Your task to perform on an android device: turn on priority inbox in the gmail app Image 0: 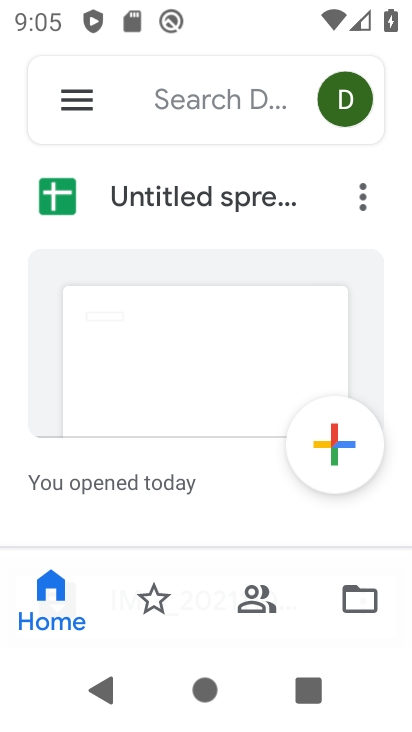
Step 0: press home button
Your task to perform on an android device: turn on priority inbox in the gmail app Image 1: 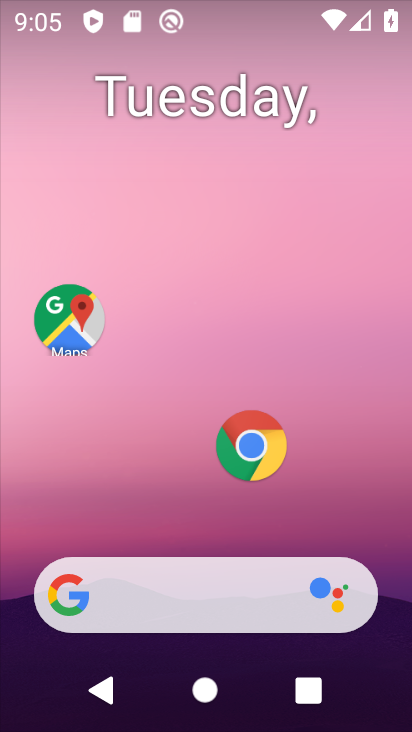
Step 1: drag from (172, 516) to (162, 108)
Your task to perform on an android device: turn on priority inbox in the gmail app Image 2: 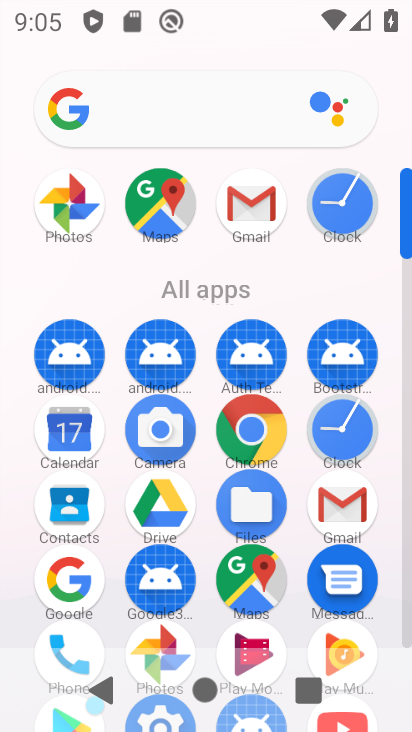
Step 2: click (252, 215)
Your task to perform on an android device: turn on priority inbox in the gmail app Image 3: 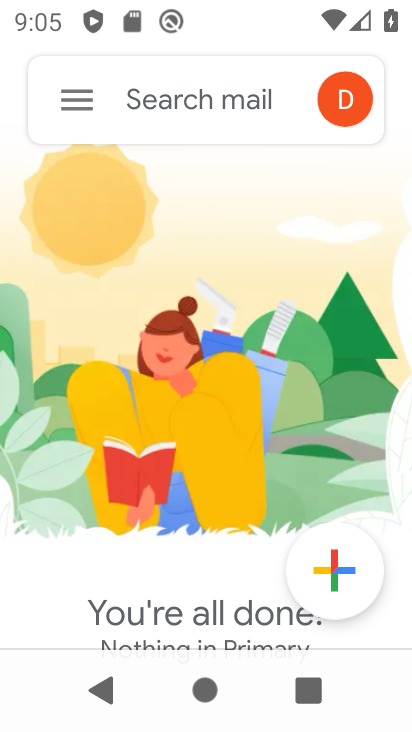
Step 3: click (66, 97)
Your task to perform on an android device: turn on priority inbox in the gmail app Image 4: 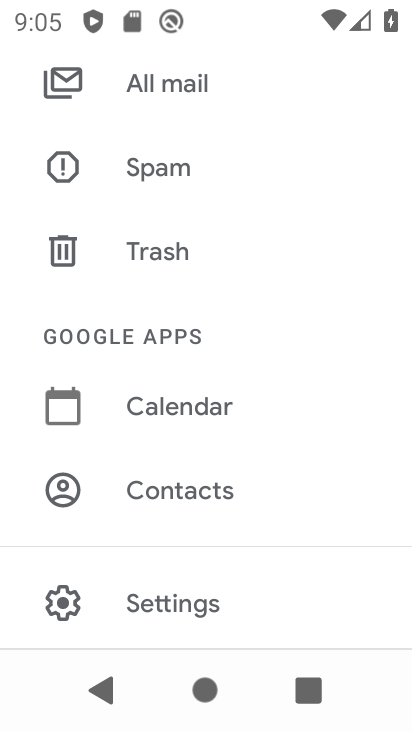
Step 4: click (182, 607)
Your task to perform on an android device: turn on priority inbox in the gmail app Image 5: 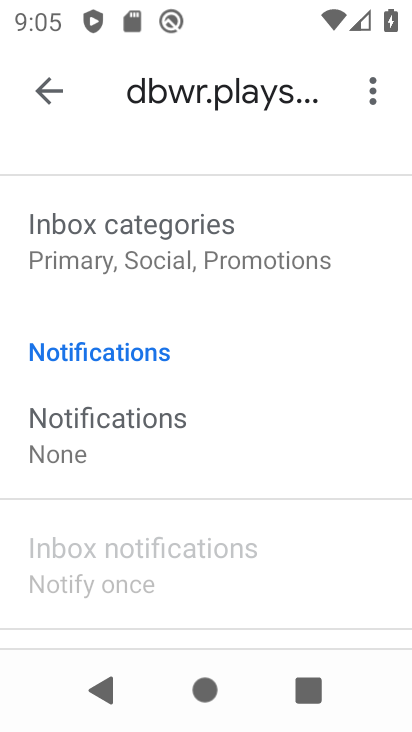
Step 5: drag from (197, 580) to (198, 351)
Your task to perform on an android device: turn on priority inbox in the gmail app Image 6: 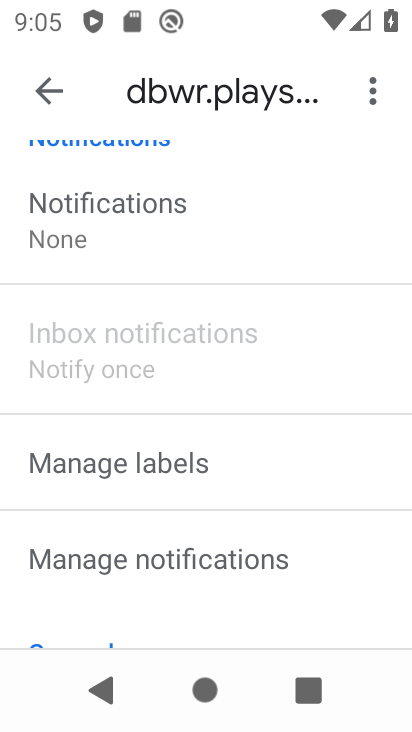
Step 6: drag from (197, 311) to (87, 663)
Your task to perform on an android device: turn on priority inbox in the gmail app Image 7: 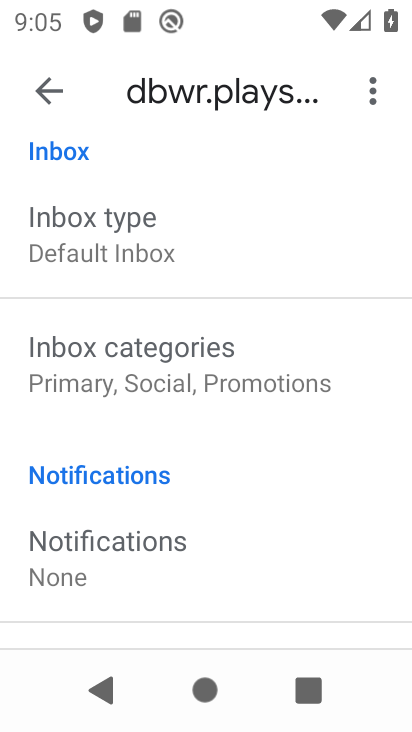
Step 7: click (112, 247)
Your task to perform on an android device: turn on priority inbox in the gmail app Image 8: 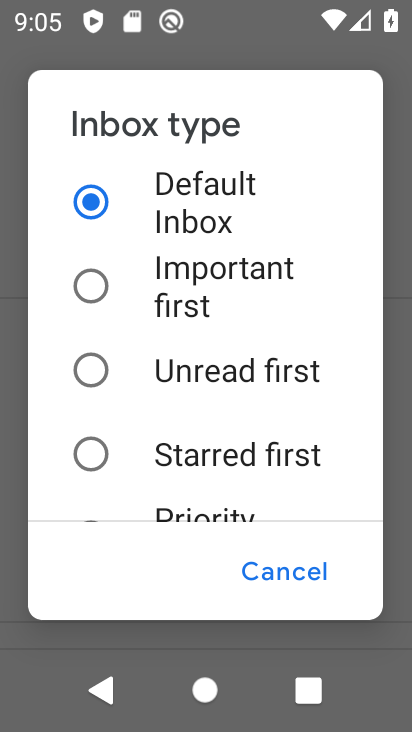
Step 8: drag from (144, 444) to (187, 193)
Your task to perform on an android device: turn on priority inbox in the gmail app Image 9: 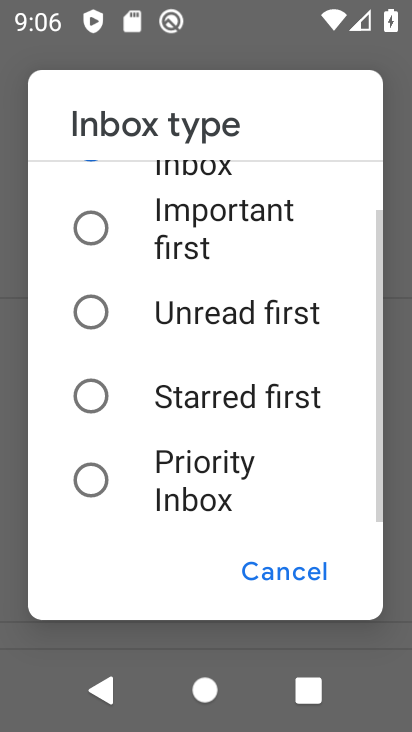
Step 9: click (92, 492)
Your task to perform on an android device: turn on priority inbox in the gmail app Image 10: 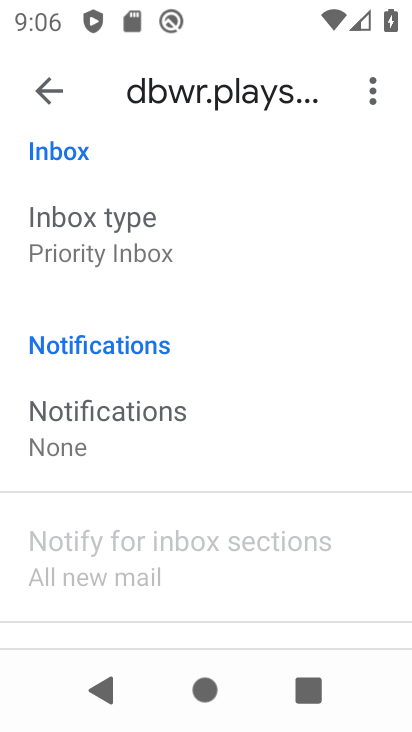
Step 10: task complete